Your task to perform on an android device: change the clock display to digital Image 0: 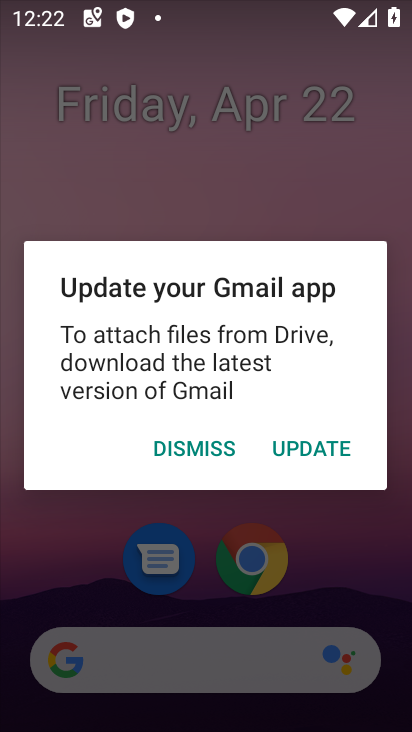
Step 0: press home button
Your task to perform on an android device: change the clock display to digital Image 1: 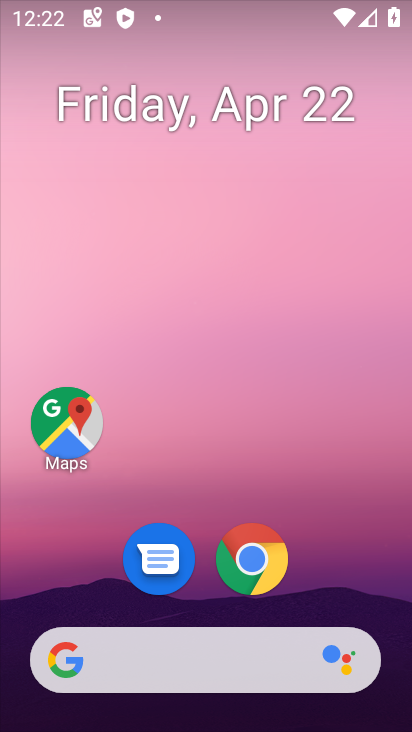
Step 1: drag from (351, 574) to (238, 52)
Your task to perform on an android device: change the clock display to digital Image 2: 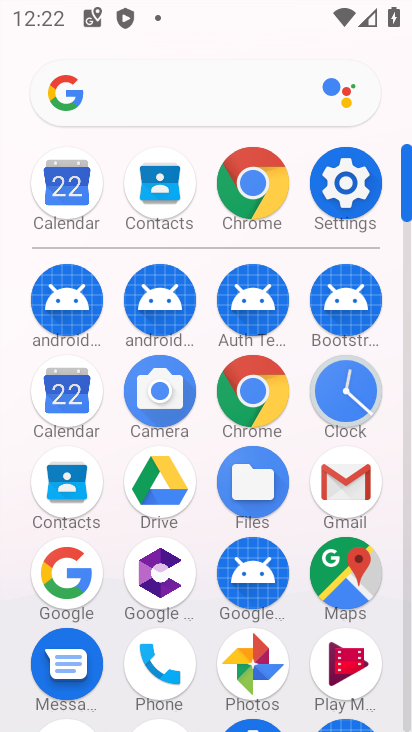
Step 2: click (342, 397)
Your task to perform on an android device: change the clock display to digital Image 3: 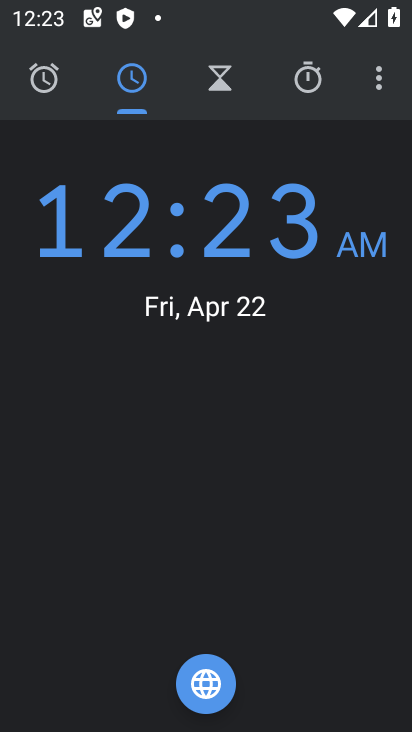
Step 3: click (382, 67)
Your task to perform on an android device: change the clock display to digital Image 4: 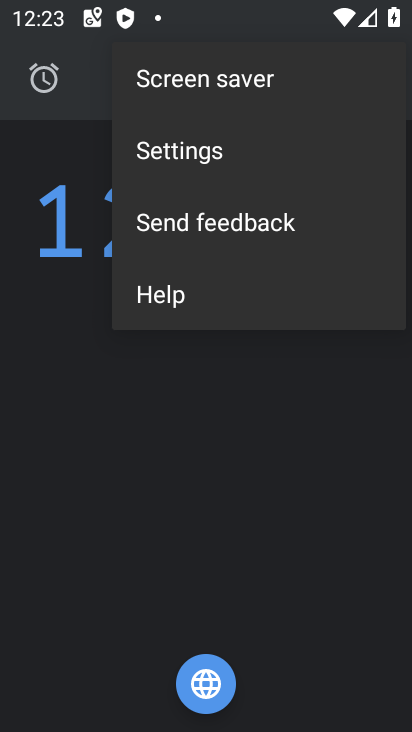
Step 4: click (285, 152)
Your task to perform on an android device: change the clock display to digital Image 5: 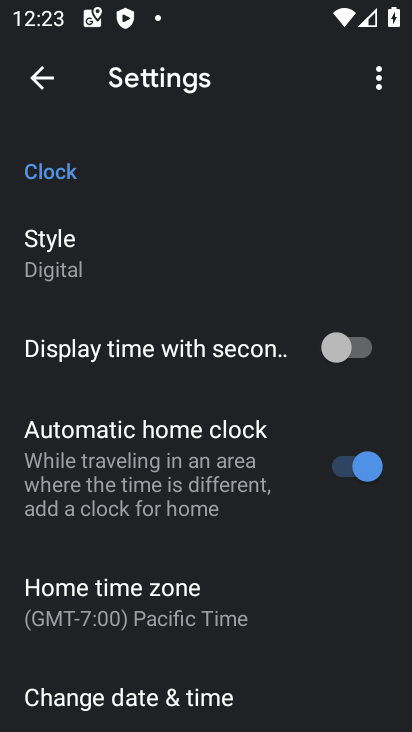
Step 5: click (106, 241)
Your task to perform on an android device: change the clock display to digital Image 6: 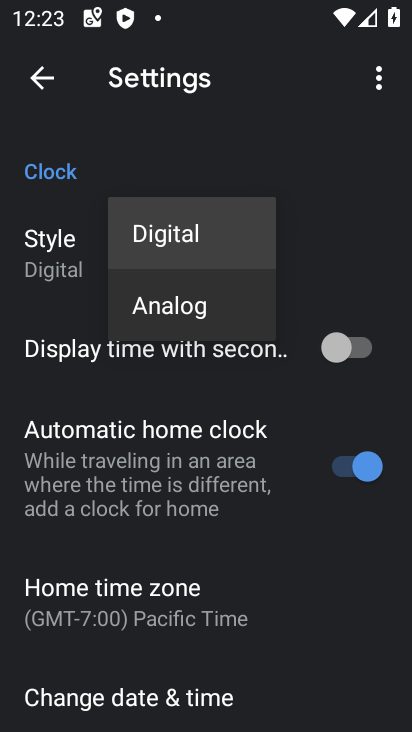
Step 6: click (162, 231)
Your task to perform on an android device: change the clock display to digital Image 7: 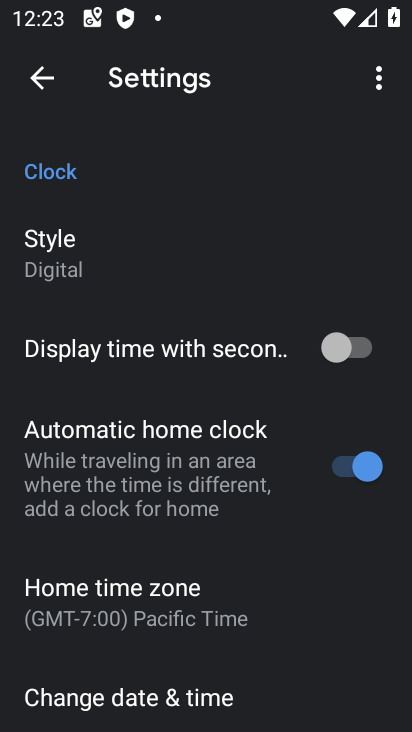
Step 7: task complete